Your task to perform on an android device: turn smart compose on in the gmail app Image 0: 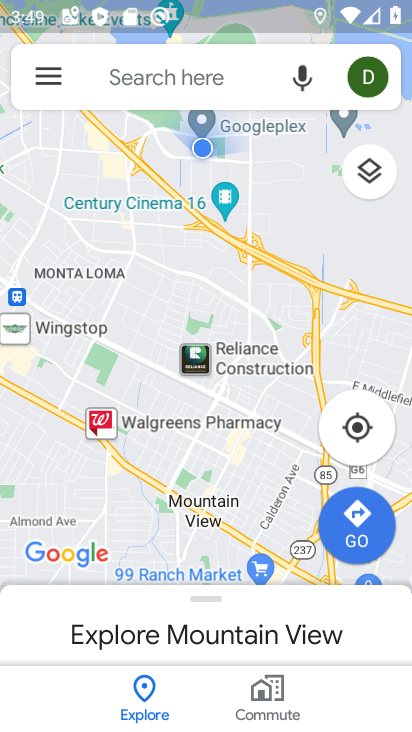
Step 0: press home button
Your task to perform on an android device: turn smart compose on in the gmail app Image 1: 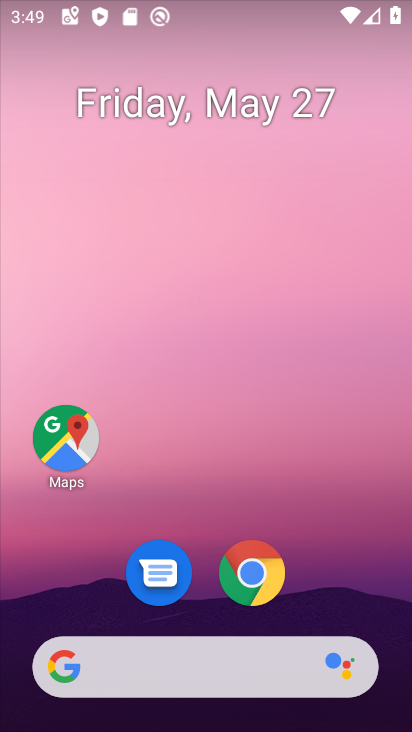
Step 1: drag from (201, 512) to (212, 6)
Your task to perform on an android device: turn smart compose on in the gmail app Image 2: 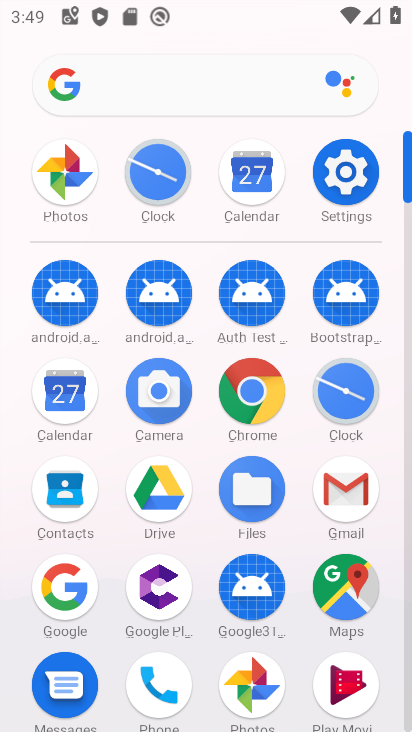
Step 2: click (346, 478)
Your task to perform on an android device: turn smart compose on in the gmail app Image 3: 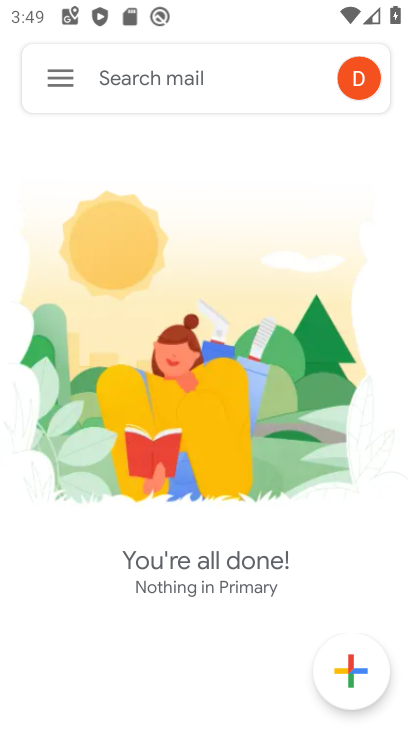
Step 3: click (62, 77)
Your task to perform on an android device: turn smart compose on in the gmail app Image 4: 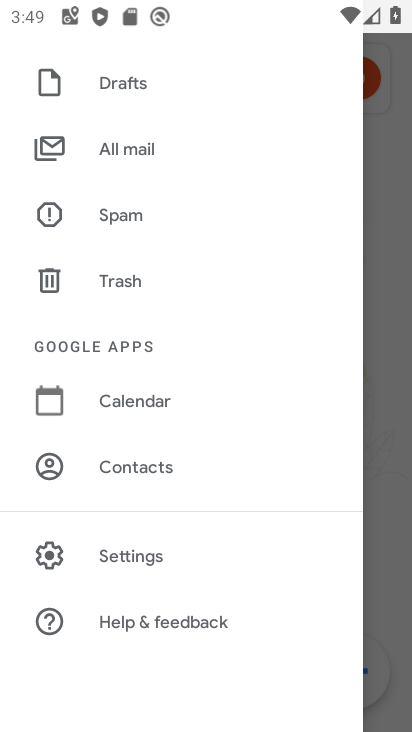
Step 4: drag from (188, 249) to (209, 290)
Your task to perform on an android device: turn smart compose on in the gmail app Image 5: 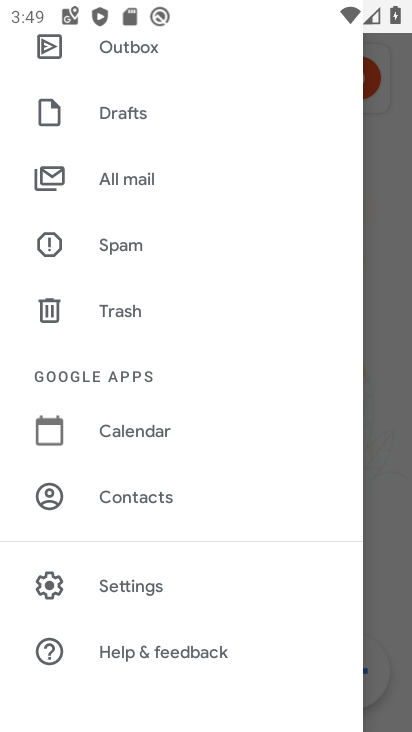
Step 5: click (141, 581)
Your task to perform on an android device: turn smart compose on in the gmail app Image 6: 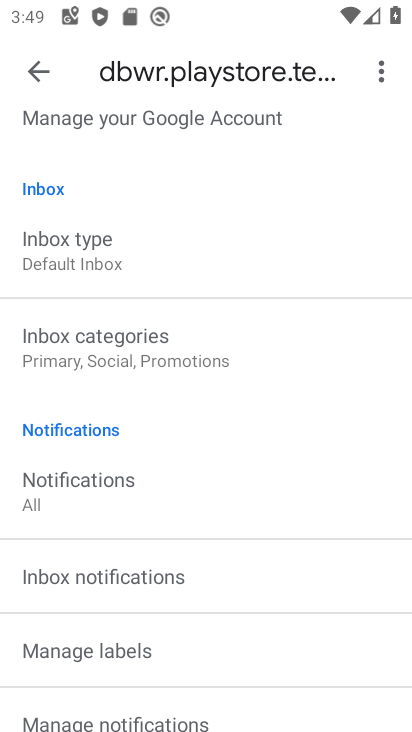
Step 6: task complete